Your task to perform on an android device: toggle data saver in the chrome app Image 0: 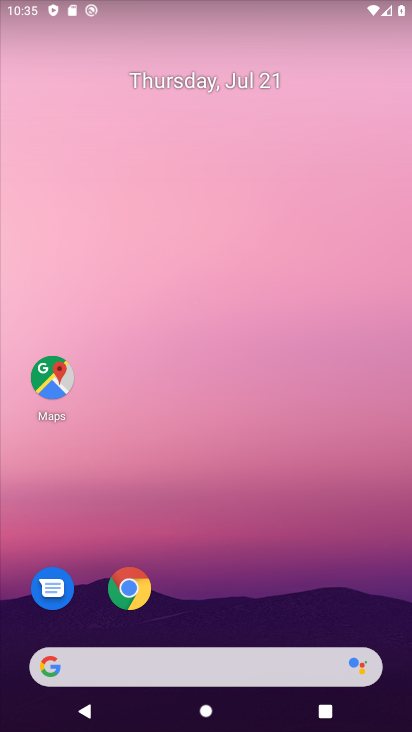
Step 0: drag from (233, 558) to (291, 5)
Your task to perform on an android device: toggle data saver in the chrome app Image 1: 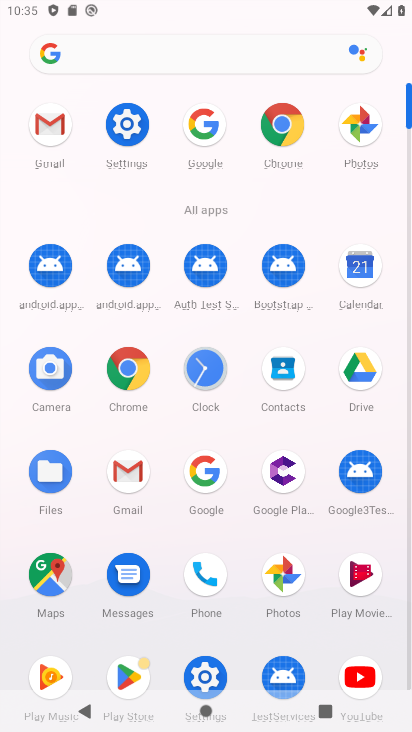
Step 1: click (303, 135)
Your task to perform on an android device: toggle data saver in the chrome app Image 2: 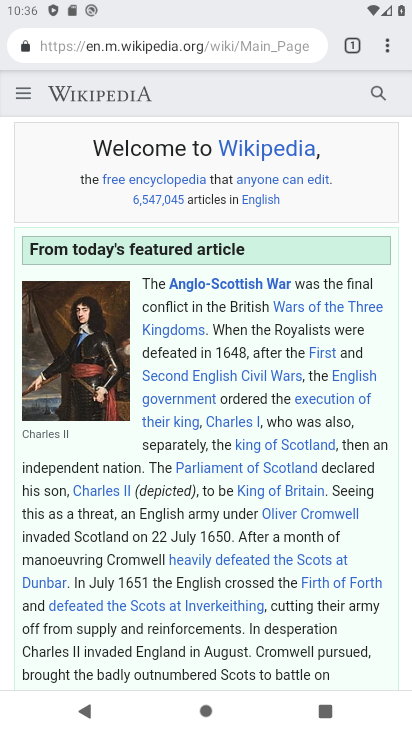
Step 2: drag from (380, 47) to (226, 544)
Your task to perform on an android device: toggle data saver in the chrome app Image 3: 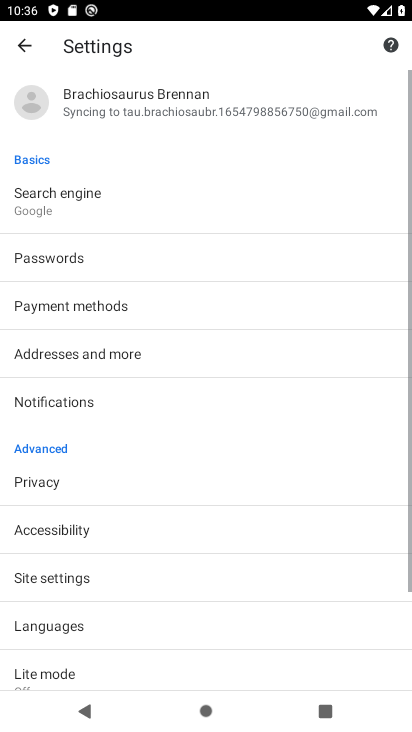
Step 3: drag from (188, 586) to (301, 80)
Your task to perform on an android device: toggle data saver in the chrome app Image 4: 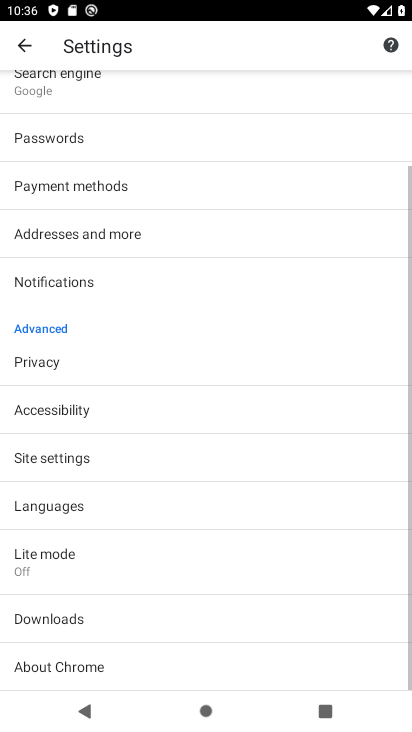
Step 4: click (70, 570)
Your task to perform on an android device: toggle data saver in the chrome app Image 5: 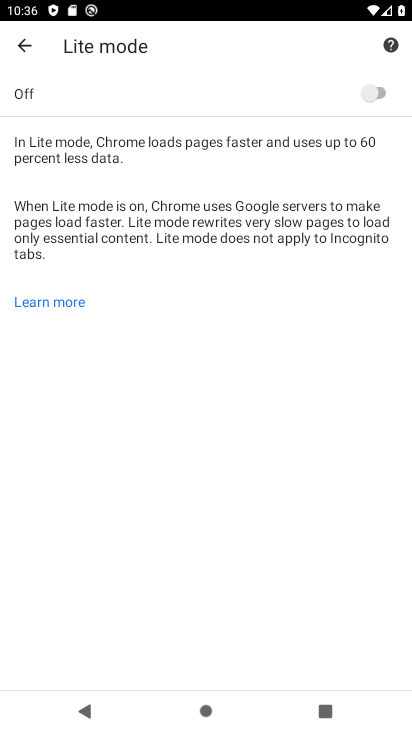
Step 5: click (378, 99)
Your task to perform on an android device: toggle data saver in the chrome app Image 6: 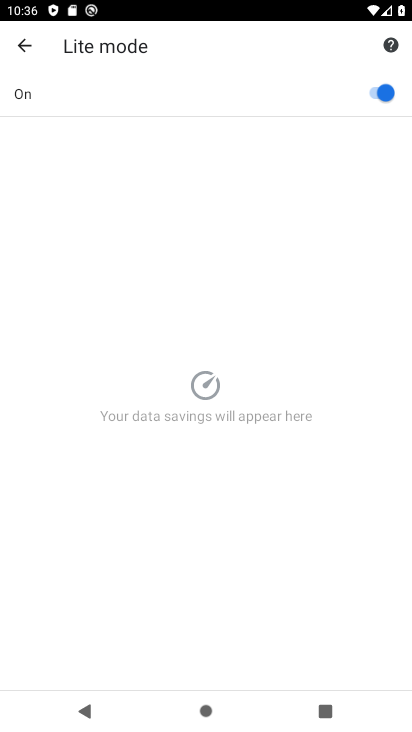
Step 6: task complete